Your task to perform on an android device: What's the weather? Image 0: 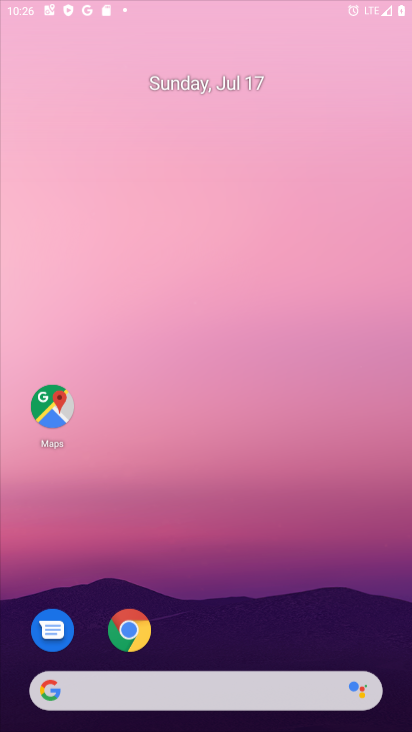
Step 0: press home button
Your task to perform on an android device: What's the weather? Image 1: 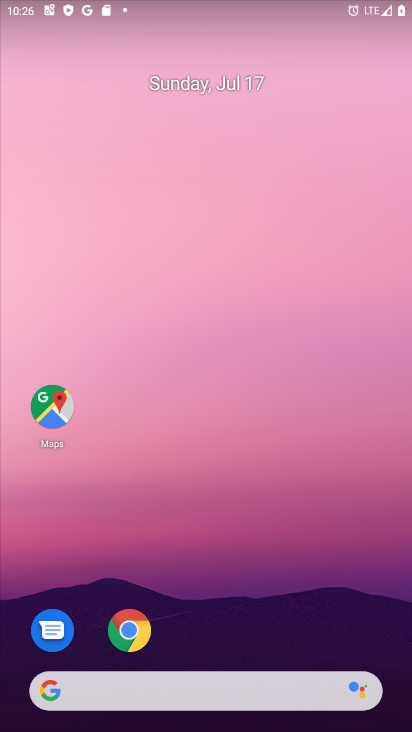
Step 1: click (149, 685)
Your task to perform on an android device: What's the weather? Image 2: 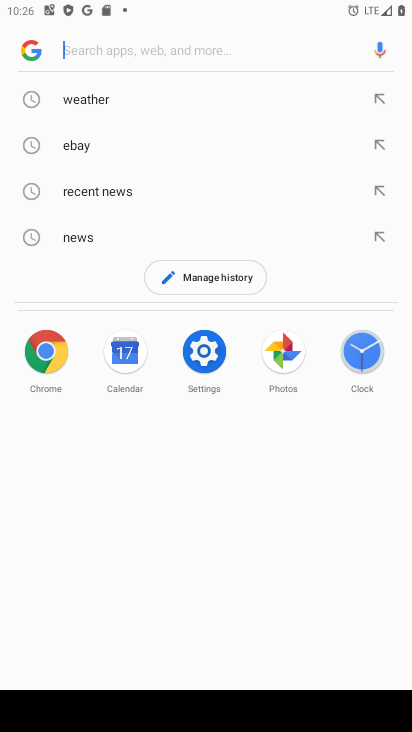
Step 2: click (107, 94)
Your task to perform on an android device: What's the weather? Image 3: 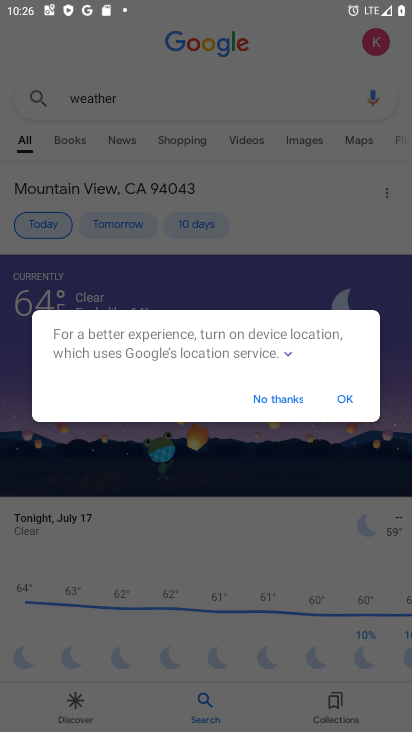
Step 3: click (348, 404)
Your task to perform on an android device: What's the weather? Image 4: 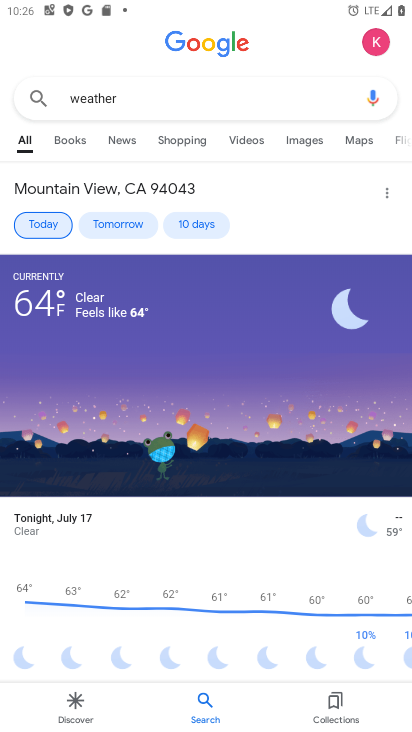
Step 4: task complete